Your task to perform on an android device: toggle javascript in the chrome app Image 0: 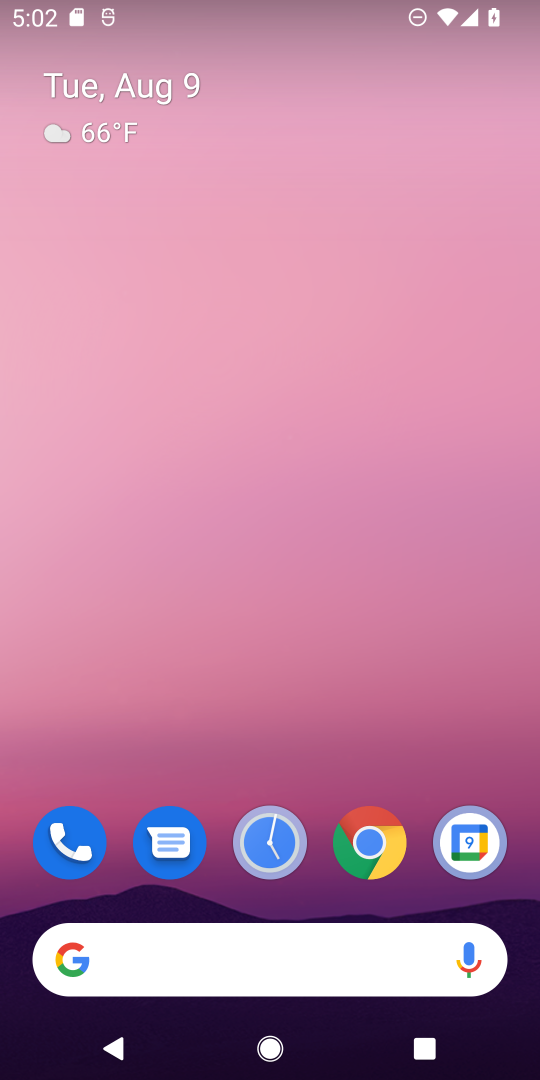
Step 0: drag from (332, 971) to (385, 25)
Your task to perform on an android device: toggle javascript in the chrome app Image 1: 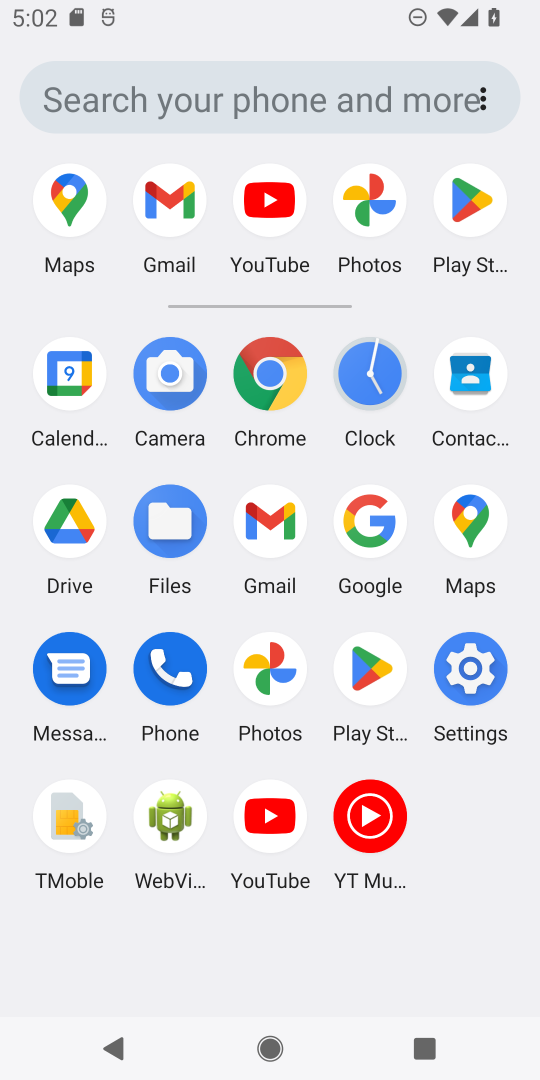
Step 1: click (264, 391)
Your task to perform on an android device: toggle javascript in the chrome app Image 2: 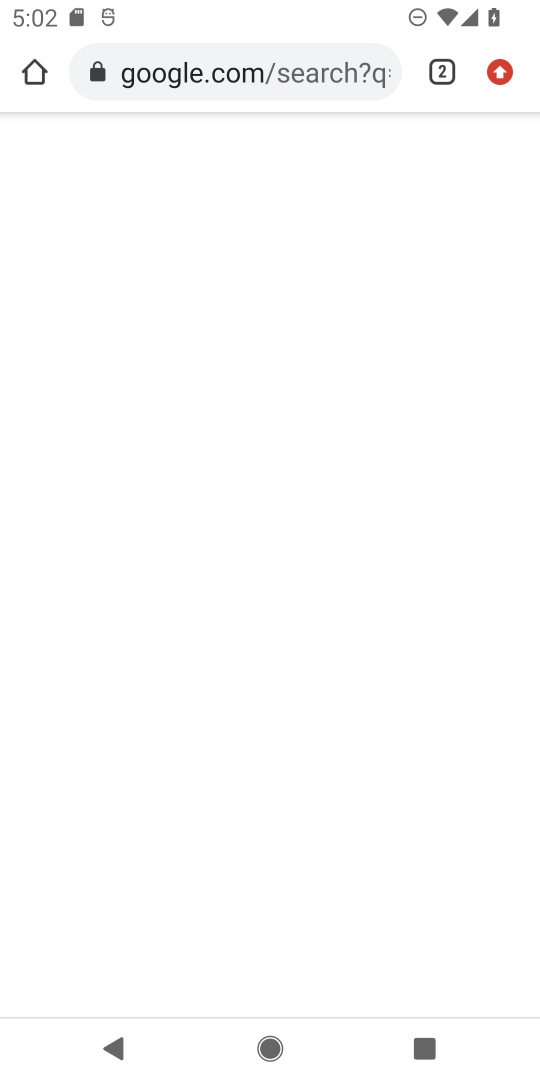
Step 2: click (505, 71)
Your task to perform on an android device: toggle javascript in the chrome app Image 3: 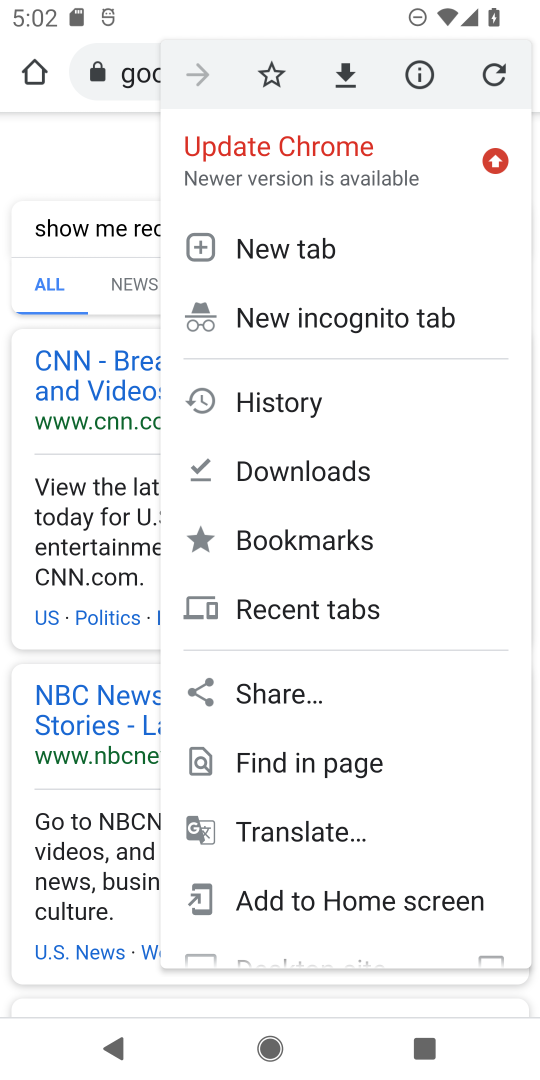
Step 3: drag from (446, 827) to (436, 175)
Your task to perform on an android device: toggle javascript in the chrome app Image 4: 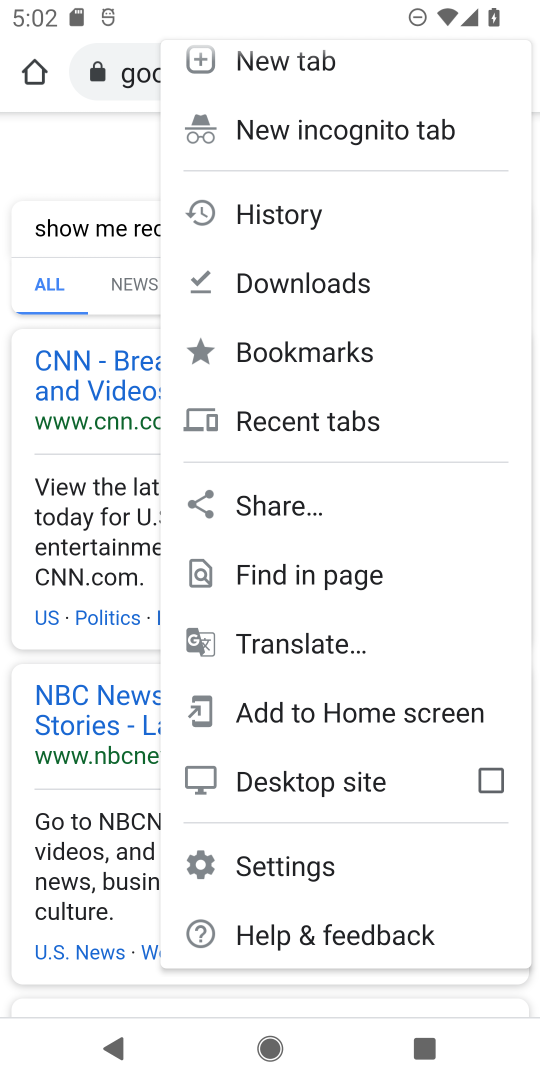
Step 4: click (333, 862)
Your task to perform on an android device: toggle javascript in the chrome app Image 5: 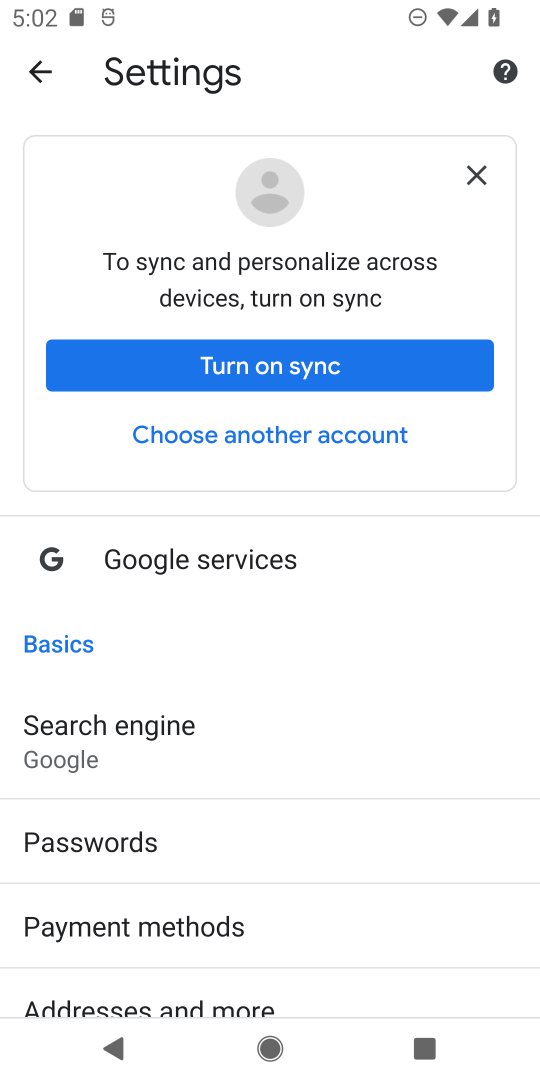
Step 5: drag from (448, 908) to (368, 386)
Your task to perform on an android device: toggle javascript in the chrome app Image 6: 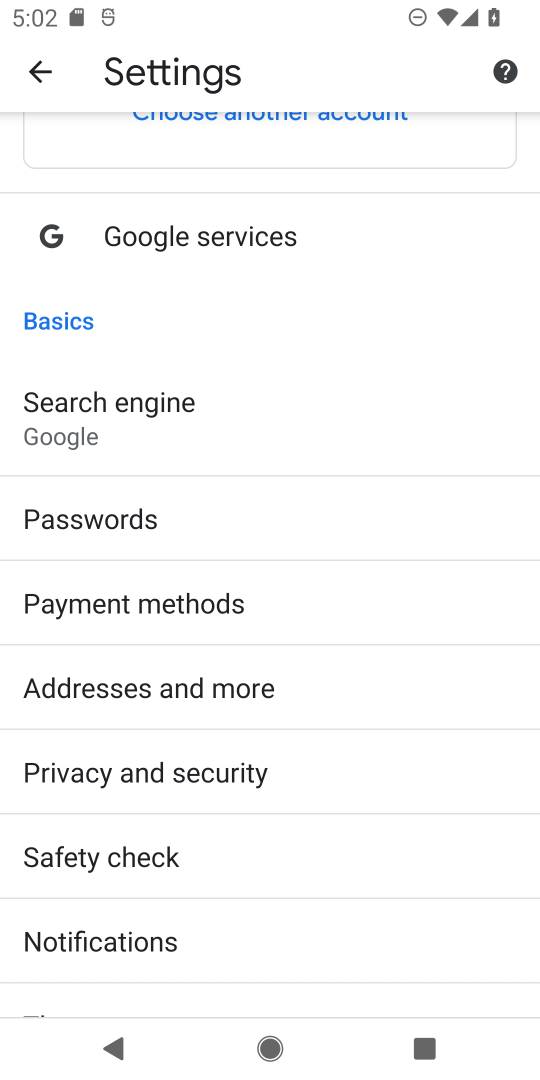
Step 6: drag from (470, 939) to (490, 340)
Your task to perform on an android device: toggle javascript in the chrome app Image 7: 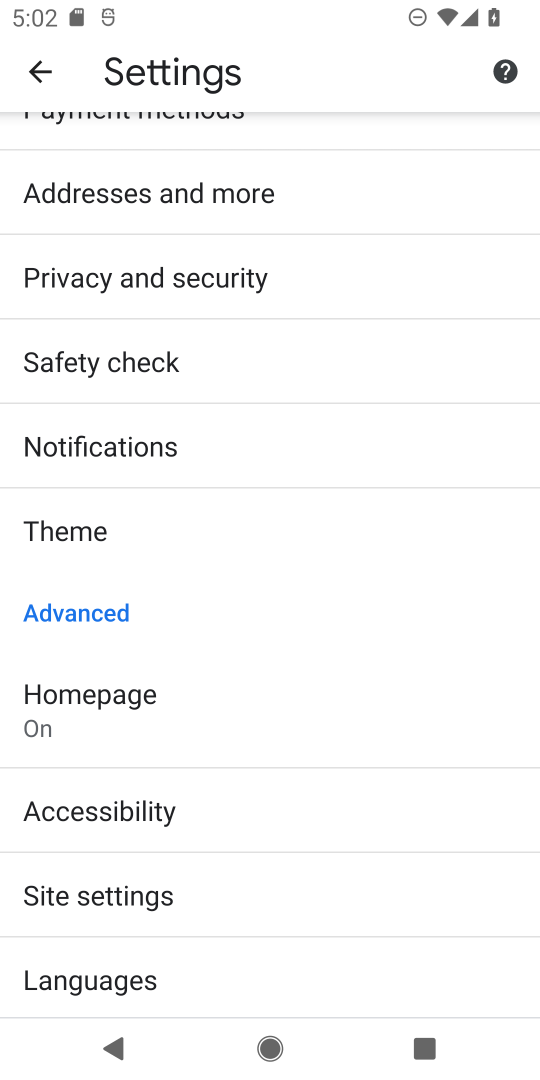
Step 7: click (228, 921)
Your task to perform on an android device: toggle javascript in the chrome app Image 8: 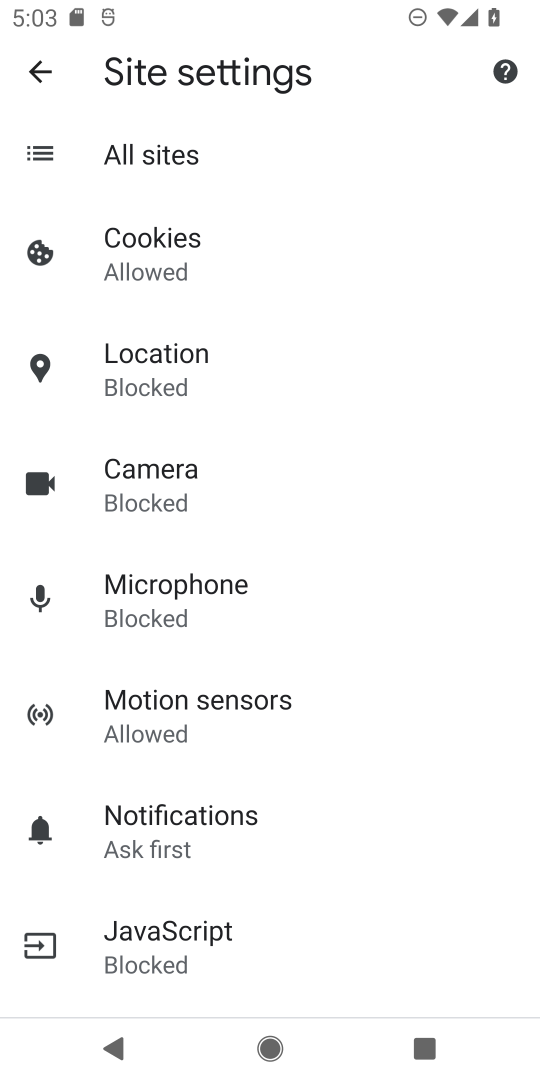
Step 8: click (205, 934)
Your task to perform on an android device: toggle javascript in the chrome app Image 9: 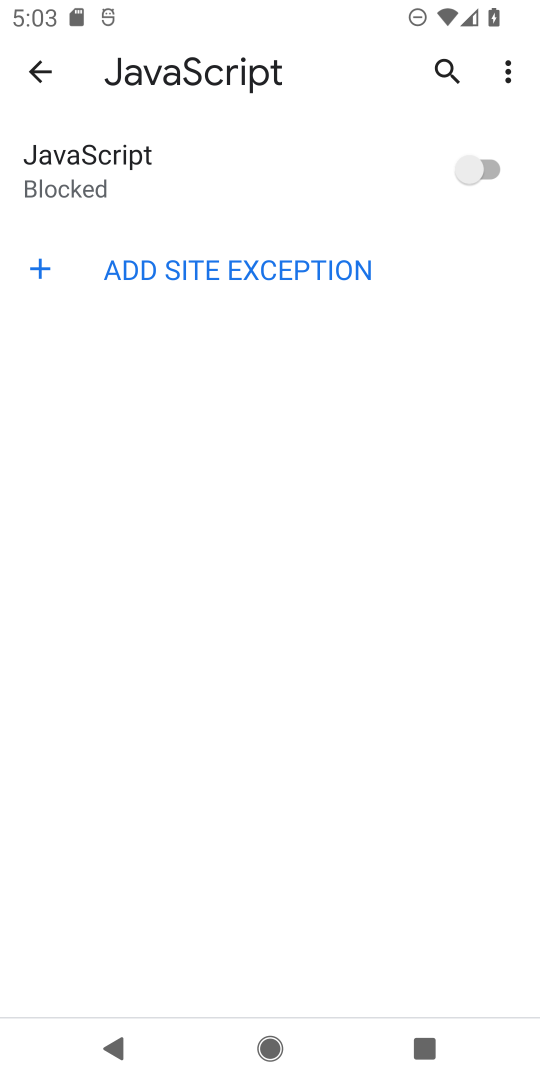
Step 9: click (466, 167)
Your task to perform on an android device: toggle javascript in the chrome app Image 10: 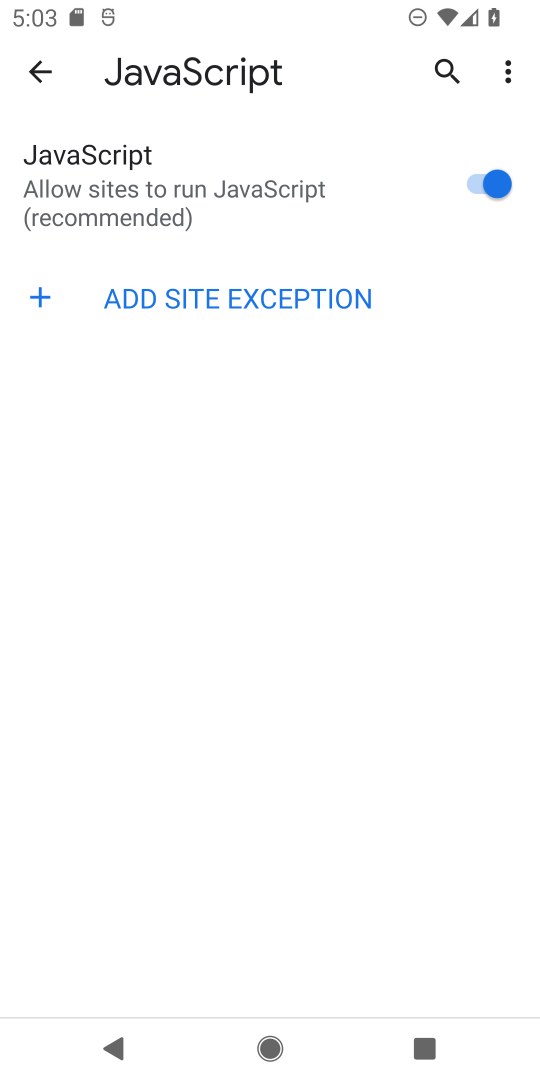
Step 10: task complete